Your task to perform on an android device: What's the weather going to be tomorrow? Image 0: 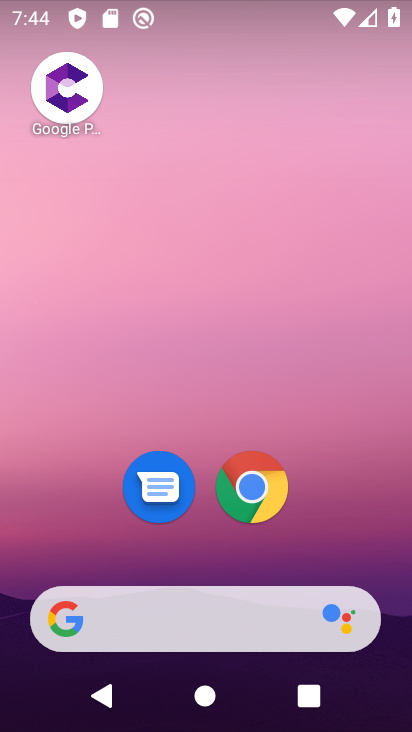
Step 0: drag from (197, 580) to (177, 160)
Your task to perform on an android device: What's the weather going to be tomorrow? Image 1: 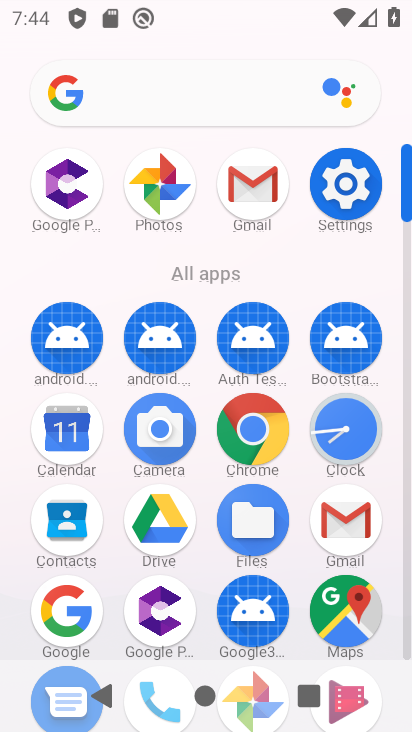
Step 1: click (56, 612)
Your task to perform on an android device: What's the weather going to be tomorrow? Image 2: 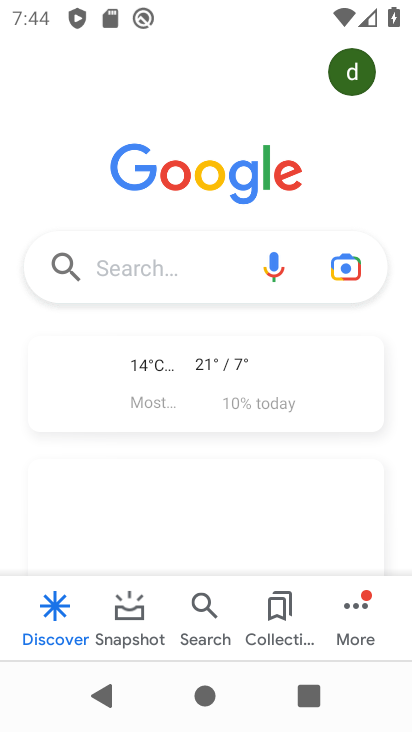
Step 2: click (164, 272)
Your task to perform on an android device: What's the weather going to be tomorrow? Image 3: 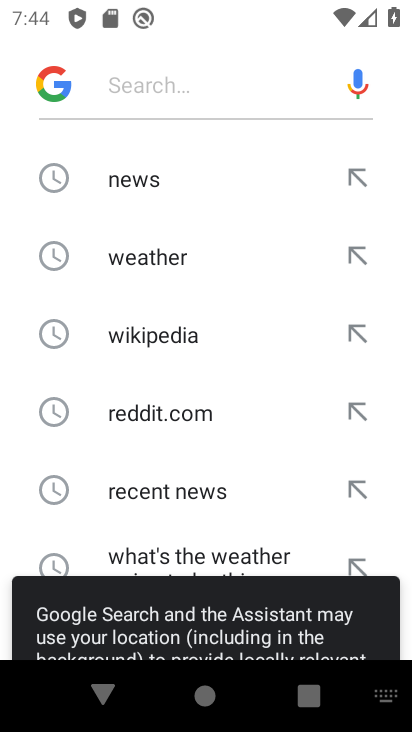
Step 3: drag from (188, 524) to (175, 241)
Your task to perform on an android device: What's the weather going to be tomorrow? Image 4: 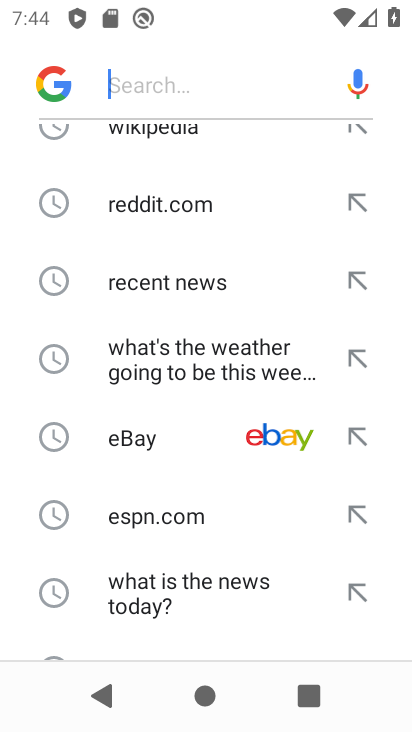
Step 4: click (157, 370)
Your task to perform on an android device: What's the weather going to be tomorrow? Image 5: 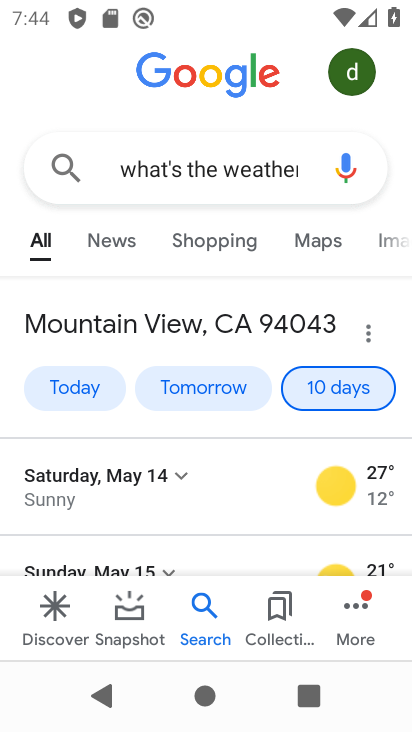
Step 5: click (203, 394)
Your task to perform on an android device: What's the weather going to be tomorrow? Image 6: 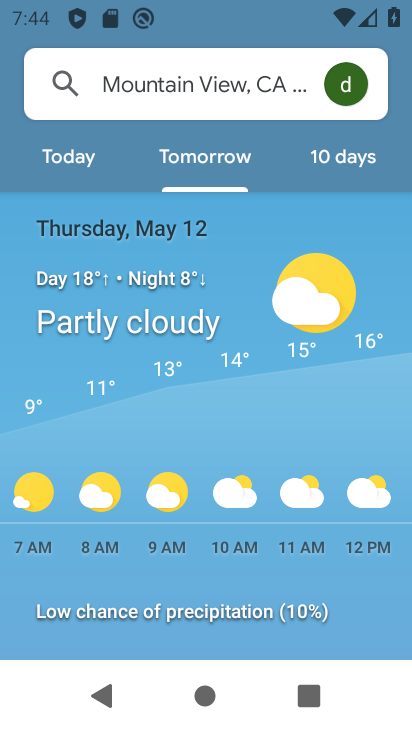
Step 6: task complete